Your task to perform on an android device: Open Chrome and go to settings Image 0: 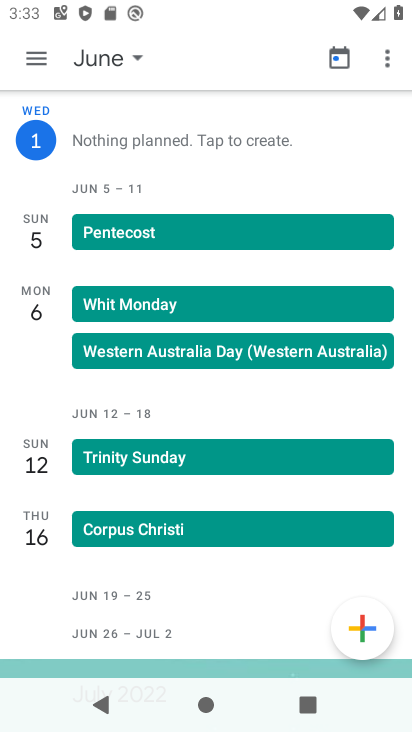
Step 0: press home button
Your task to perform on an android device: Open Chrome and go to settings Image 1: 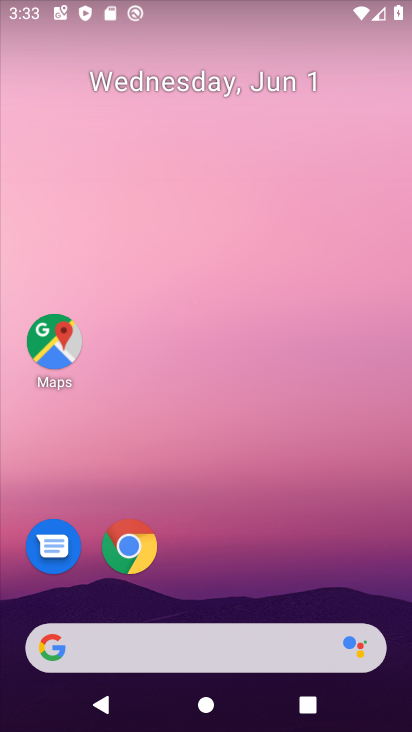
Step 1: click (133, 562)
Your task to perform on an android device: Open Chrome and go to settings Image 2: 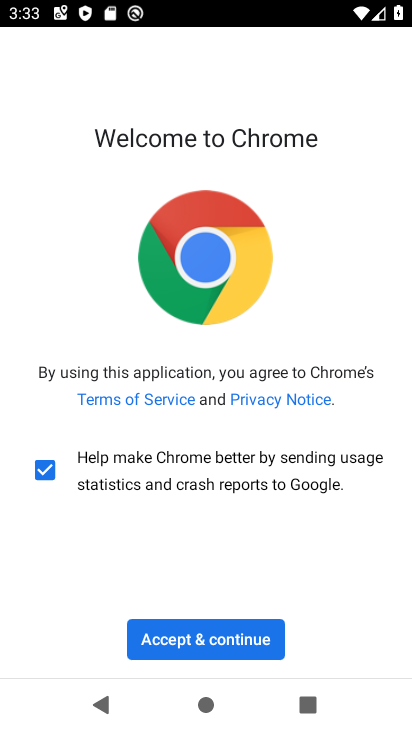
Step 2: click (227, 639)
Your task to perform on an android device: Open Chrome and go to settings Image 3: 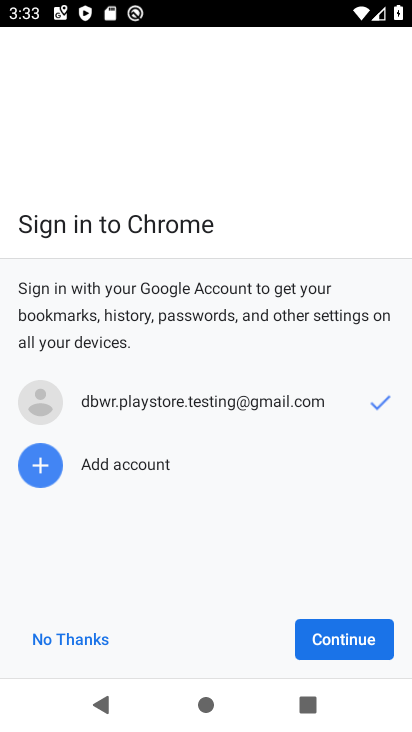
Step 3: click (328, 631)
Your task to perform on an android device: Open Chrome and go to settings Image 4: 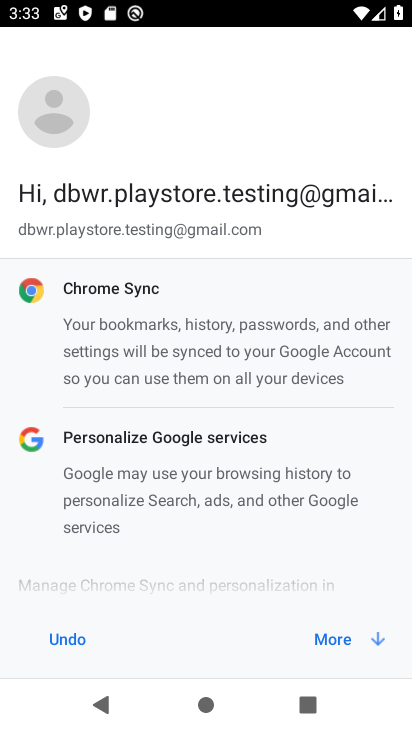
Step 4: click (327, 629)
Your task to perform on an android device: Open Chrome and go to settings Image 5: 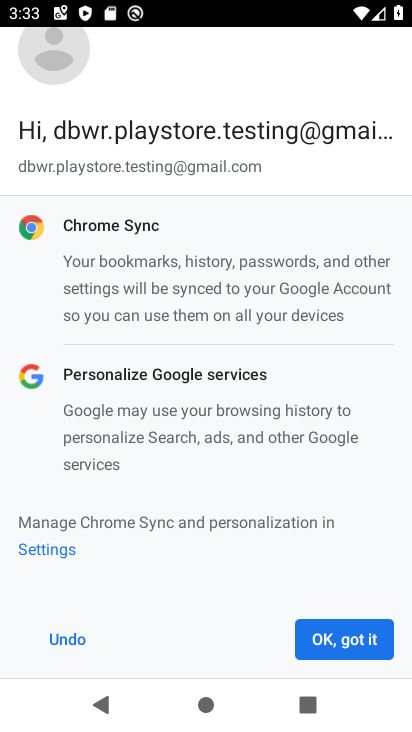
Step 5: click (327, 629)
Your task to perform on an android device: Open Chrome and go to settings Image 6: 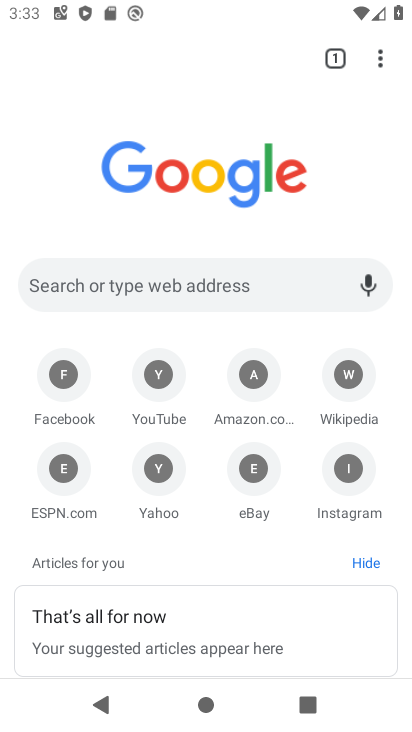
Step 6: click (389, 64)
Your task to perform on an android device: Open Chrome and go to settings Image 7: 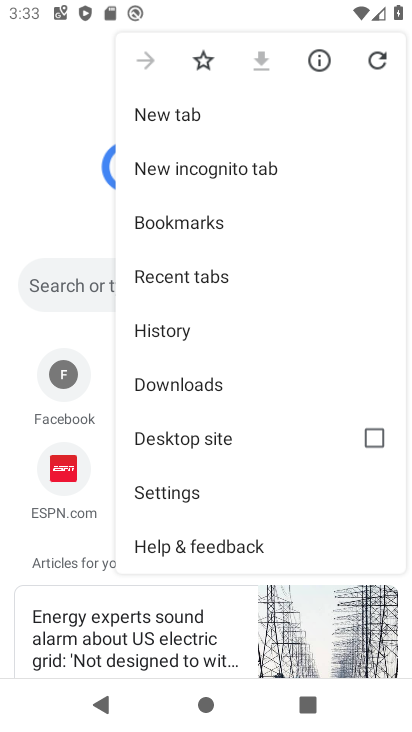
Step 7: click (214, 488)
Your task to perform on an android device: Open Chrome and go to settings Image 8: 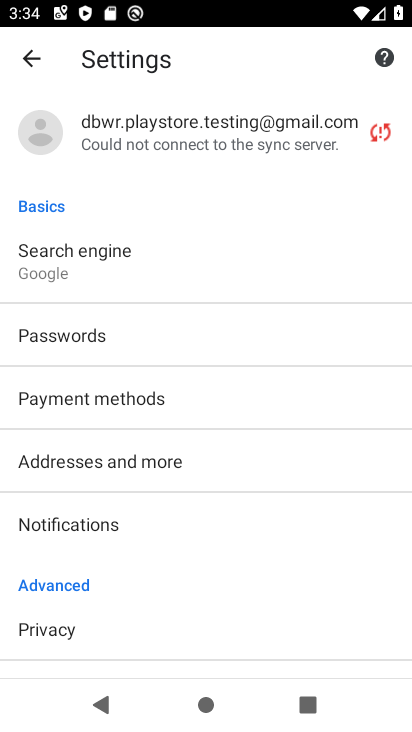
Step 8: task complete